Your task to perform on an android device: Open the calendar and show me this week's events? Image 0: 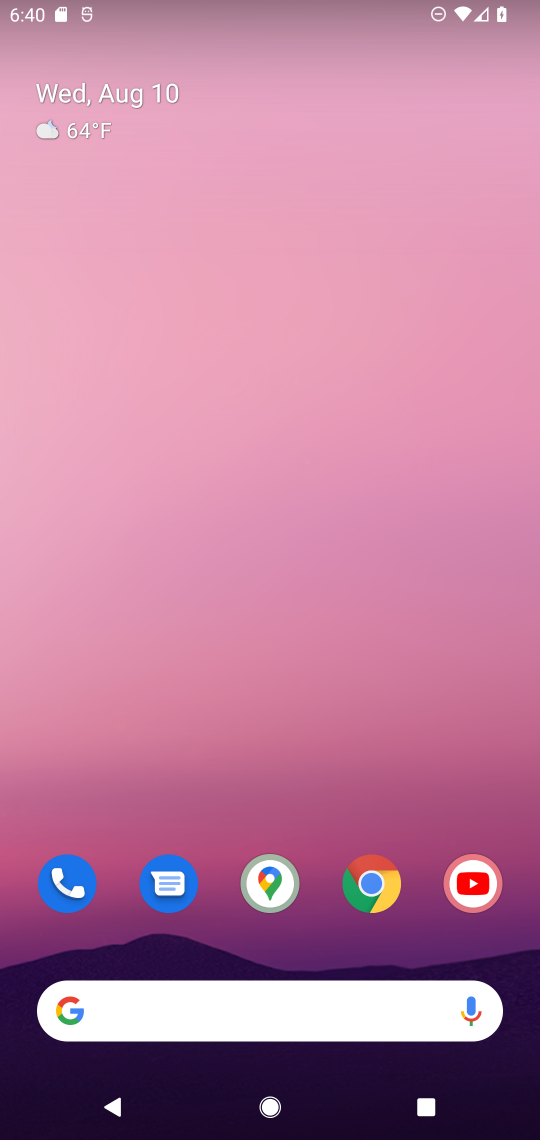
Step 0: drag from (294, 815) to (299, 42)
Your task to perform on an android device: Open the calendar and show me this week's events? Image 1: 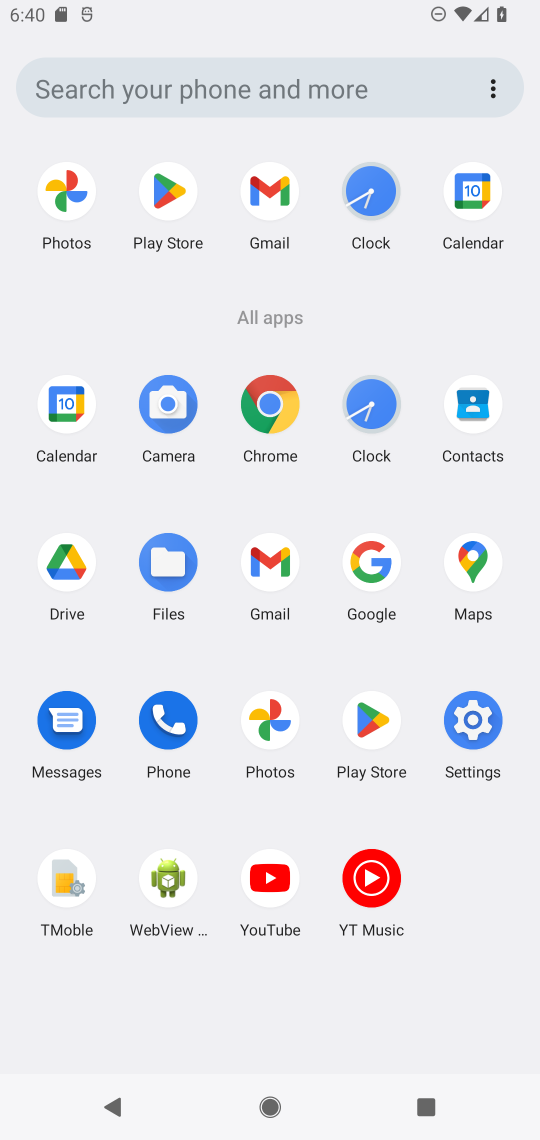
Step 1: click (63, 401)
Your task to perform on an android device: Open the calendar and show me this week's events? Image 2: 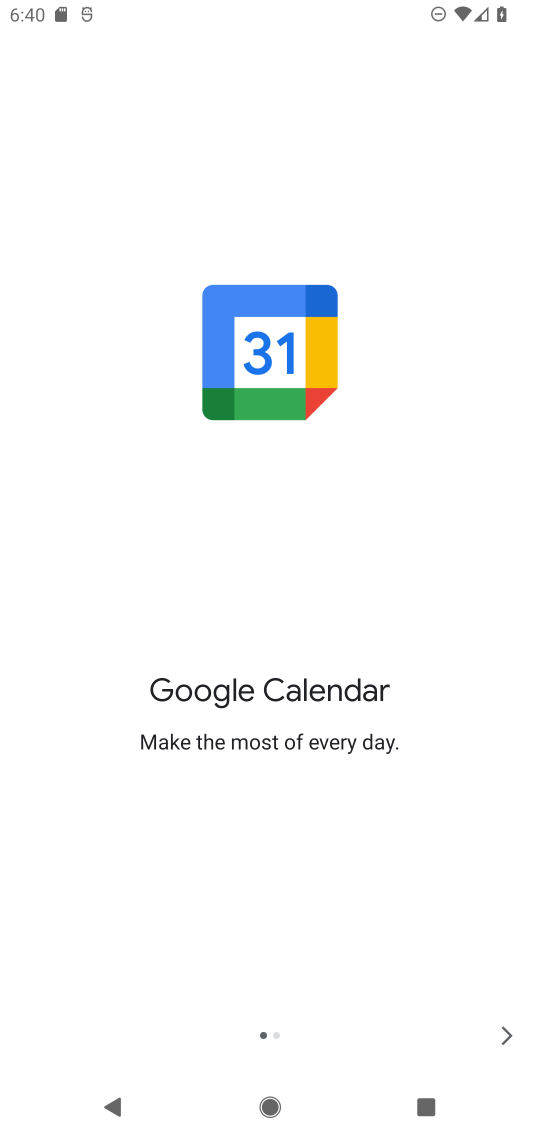
Step 2: click (505, 1029)
Your task to perform on an android device: Open the calendar and show me this week's events? Image 3: 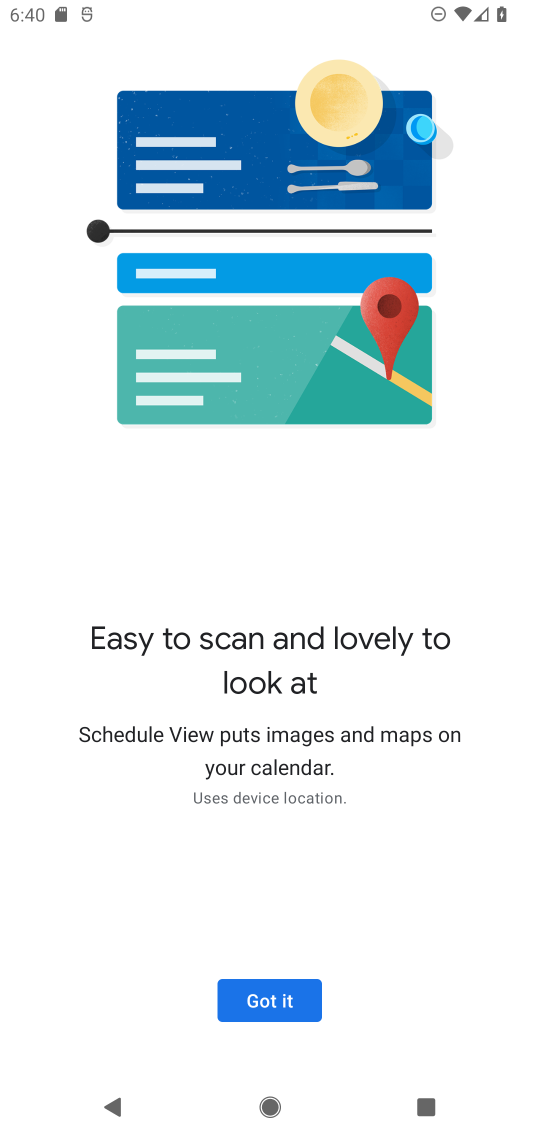
Step 3: click (505, 1029)
Your task to perform on an android device: Open the calendar and show me this week's events? Image 4: 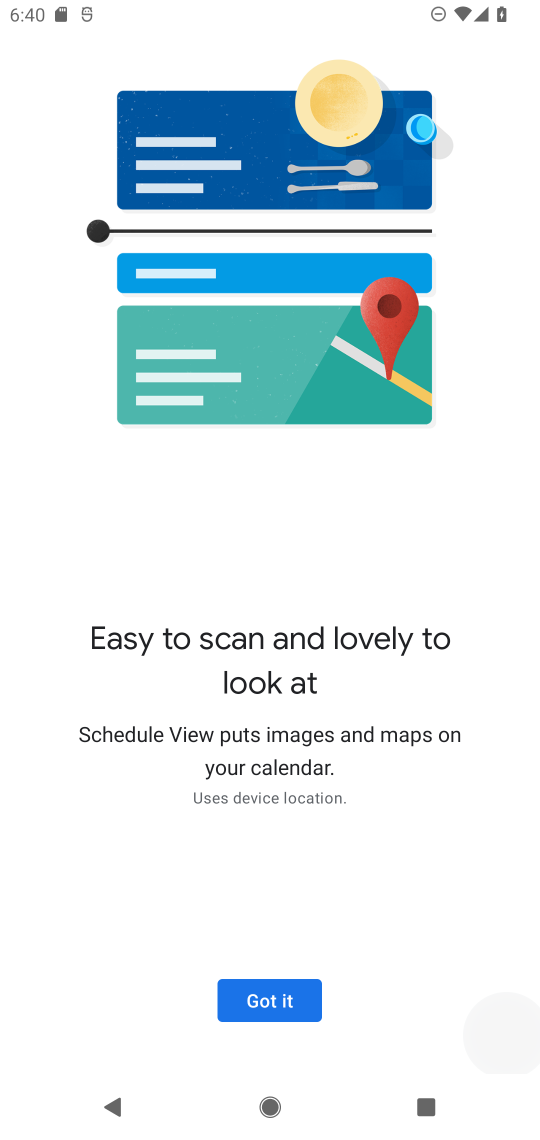
Step 4: click (269, 1008)
Your task to perform on an android device: Open the calendar and show me this week's events? Image 5: 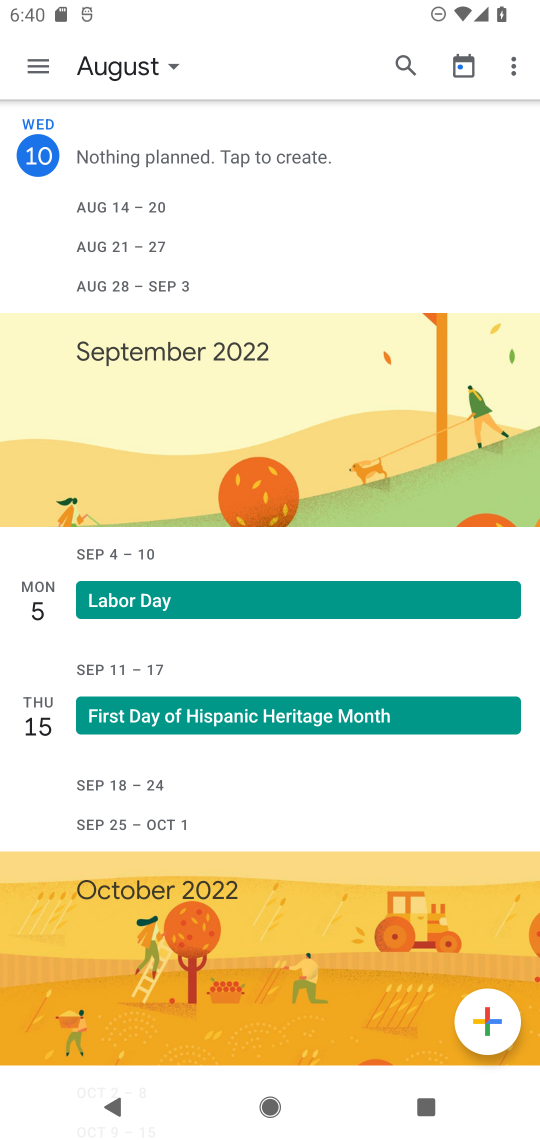
Step 5: click (156, 66)
Your task to perform on an android device: Open the calendar and show me this week's events? Image 6: 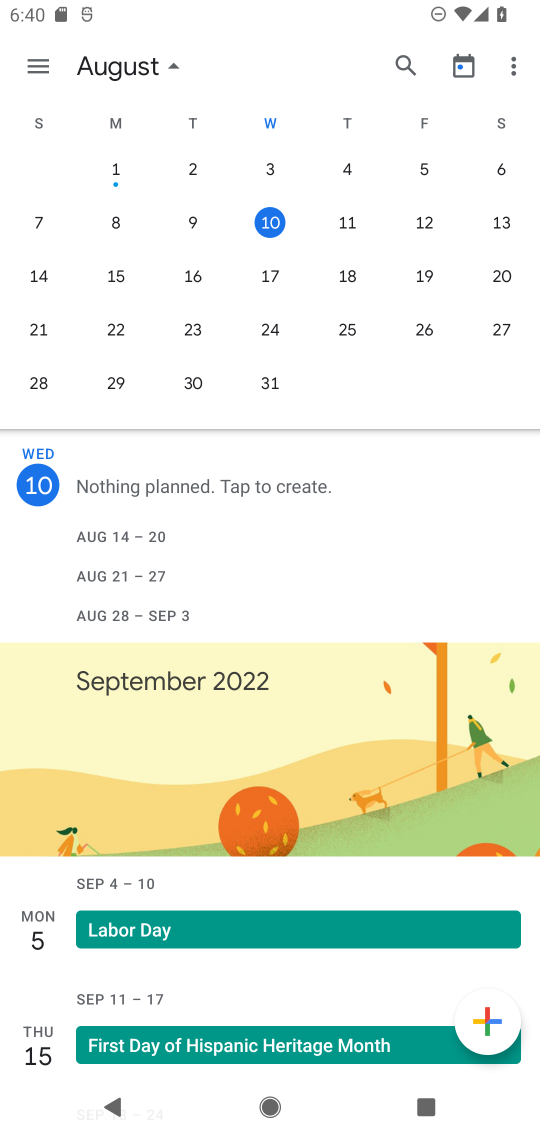
Step 6: click (328, 223)
Your task to perform on an android device: Open the calendar and show me this week's events? Image 7: 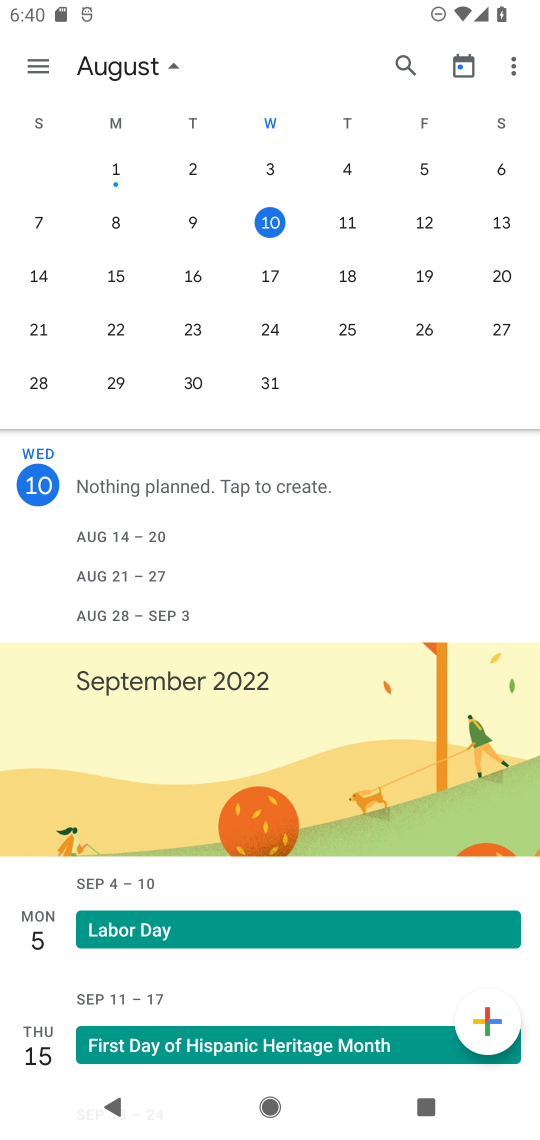
Step 7: click (335, 214)
Your task to perform on an android device: Open the calendar and show me this week's events? Image 8: 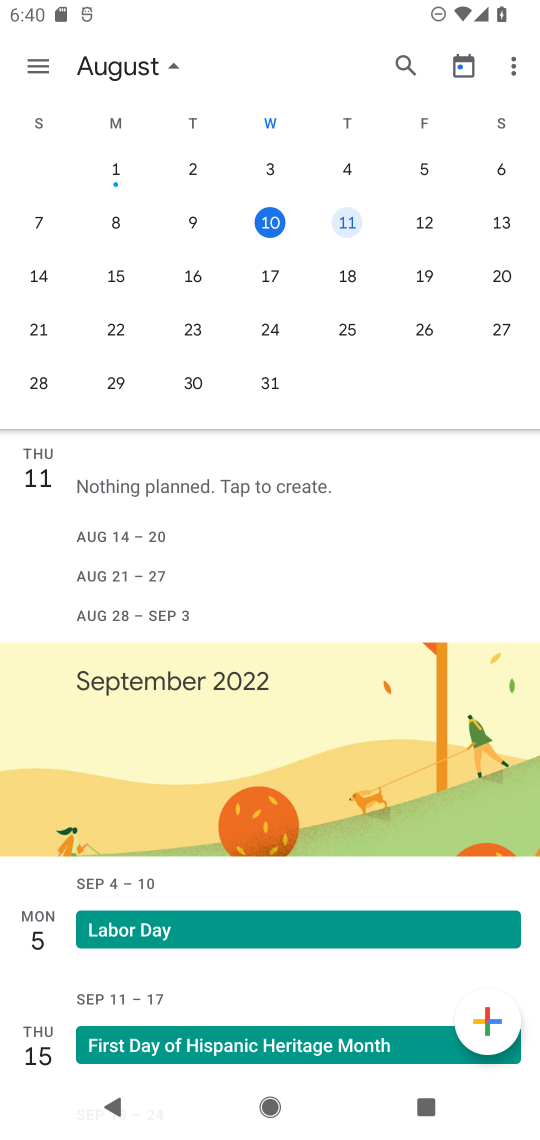
Step 8: click (428, 223)
Your task to perform on an android device: Open the calendar and show me this week's events? Image 9: 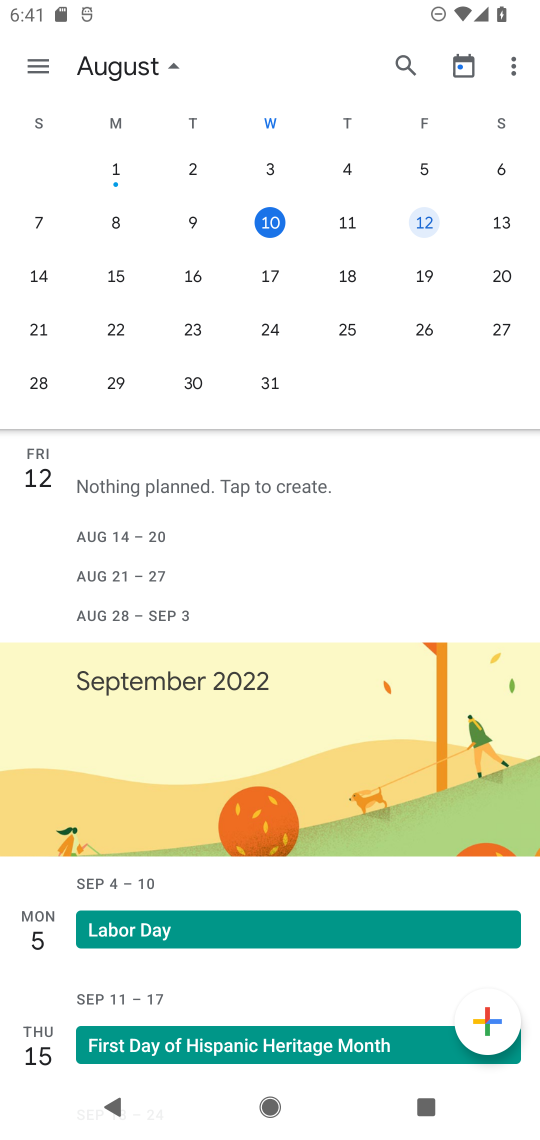
Step 9: click (512, 226)
Your task to perform on an android device: Open the calendar and show me this week's events? Image 10: 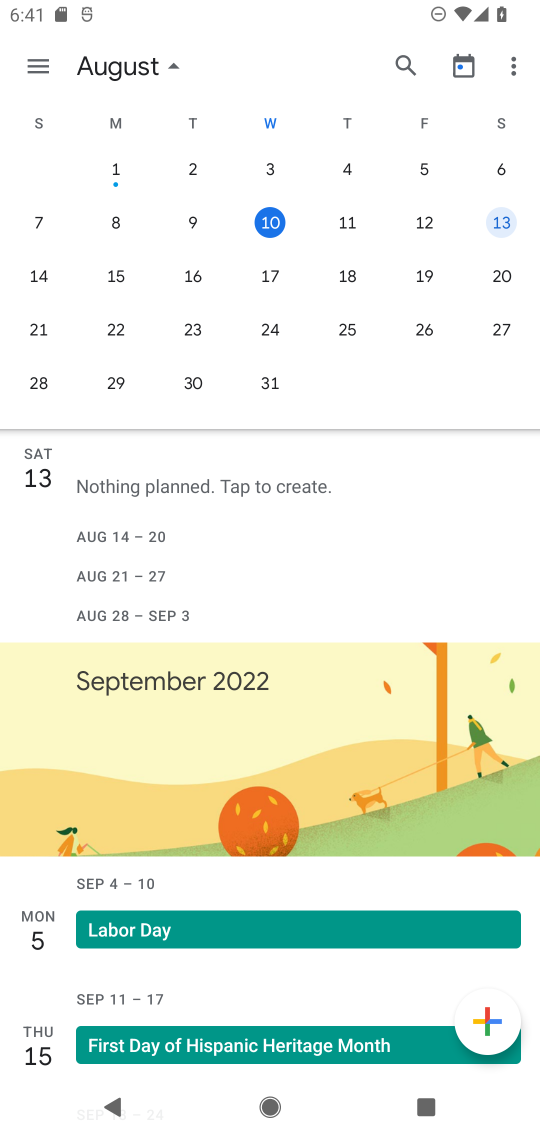
Step 10: click (46, 273)
Your task to perform on an android device: Open the calendar and show me this week's events? Image 11: 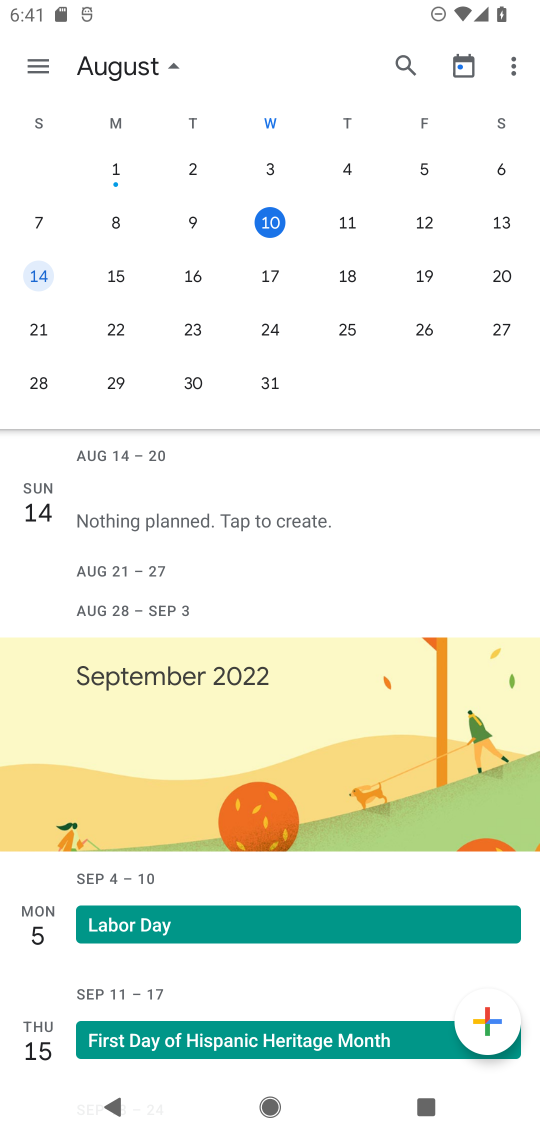
Step 11: click (122, 275)
Your task to perform on an android device: Open the calendar and show me this week's events? Image 12: 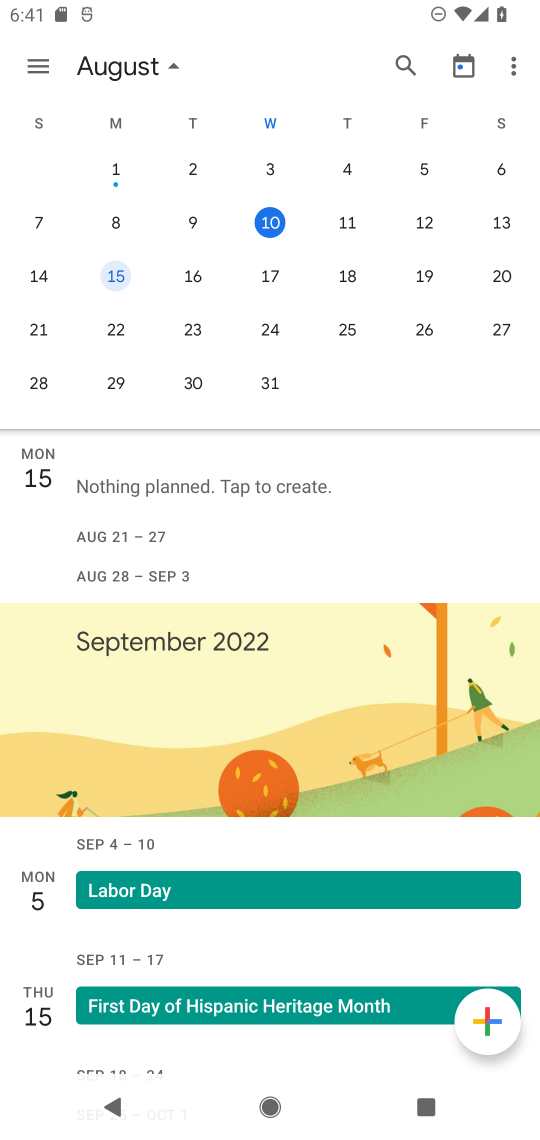
Step 12: click (196, 269)
Your task to perform on an android device: Open the calendar and show me this week's events? Image 13: 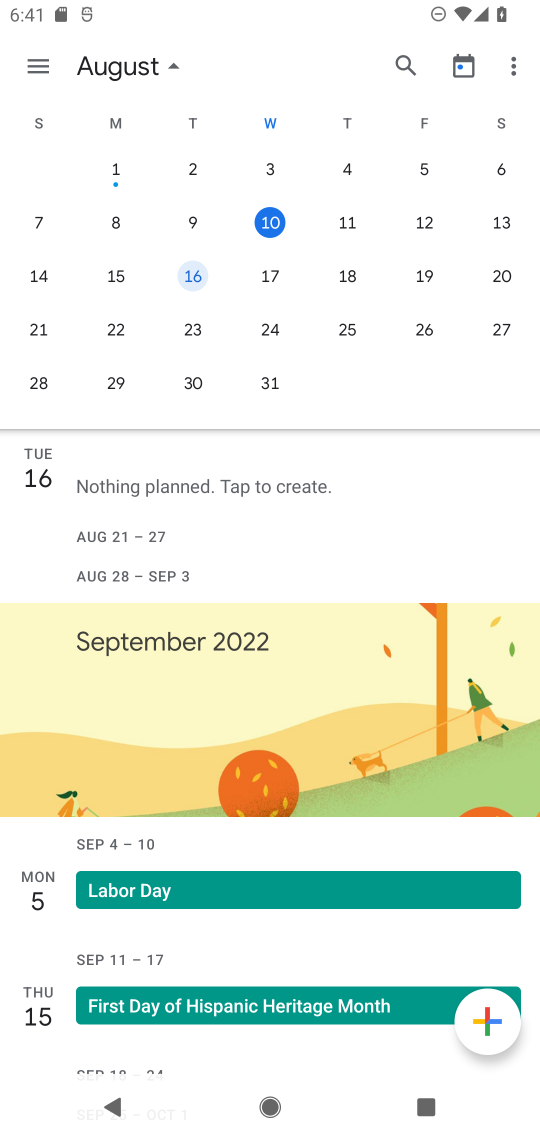
Step 13: click (276, 269)
Your task to perform on an android device: Open the calendar and show me this week's events? Image 14: 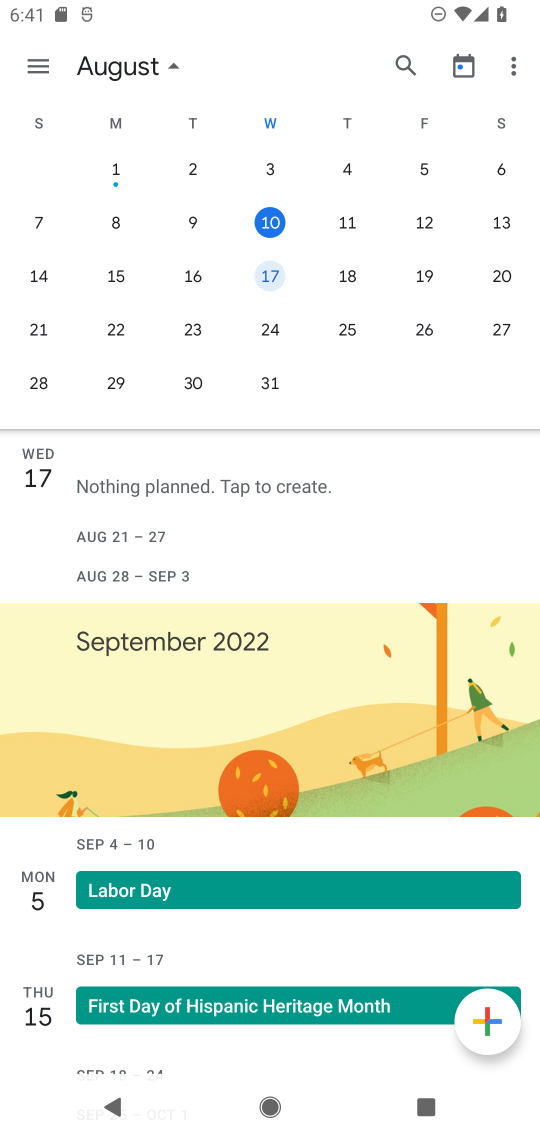
Step 14: click (350, 269)
Your task to perform on an android device: Open the calendar and show me this week's events? Image 15: 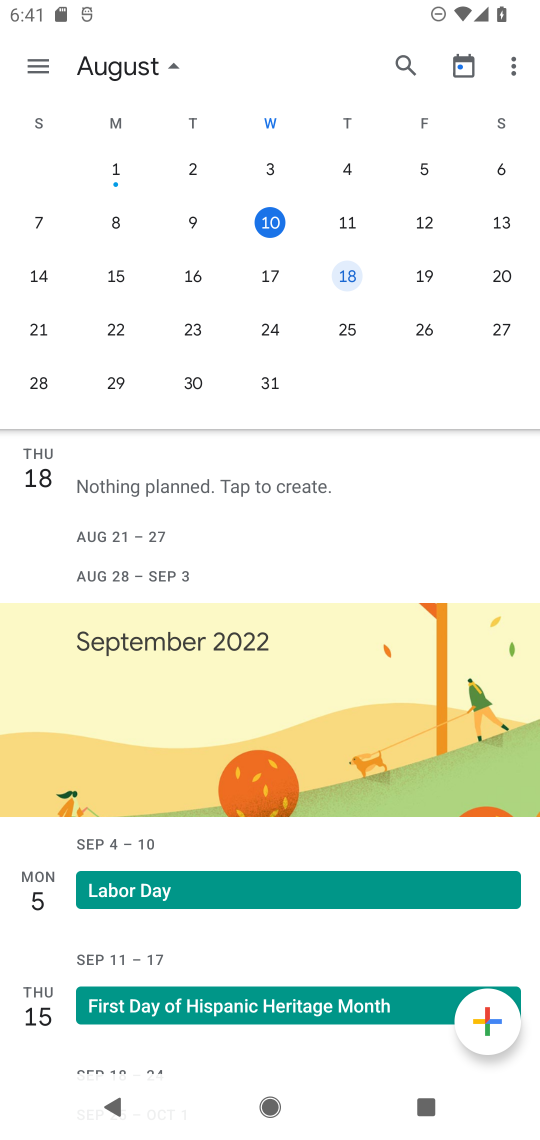
Step 15: task complete